Your task to perform on an android device: Go to sound settings Image 0: 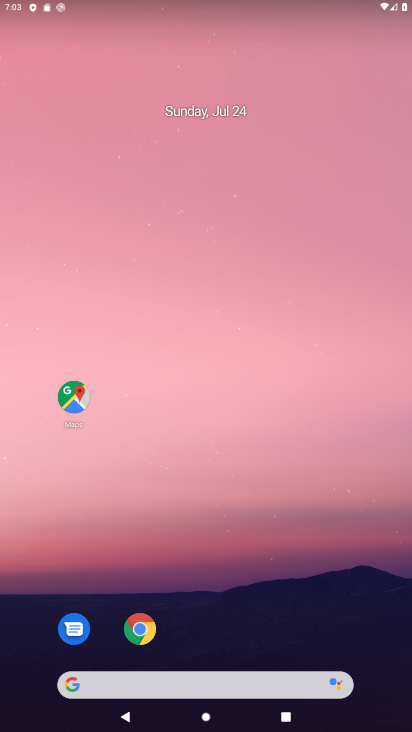
Step 0: drag from (280, 619) to (203, 40)
Your task to perform on an android device: Go to sound settings Image 1: 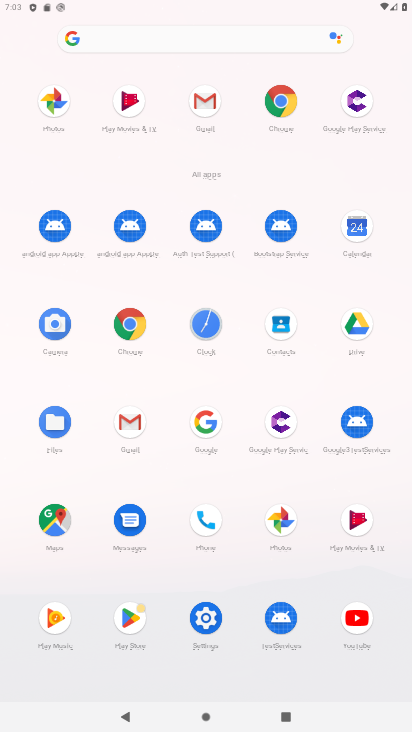
Step 1: click (194, 613)
Your task to perform on an android device: Go to sound settings Image 2: 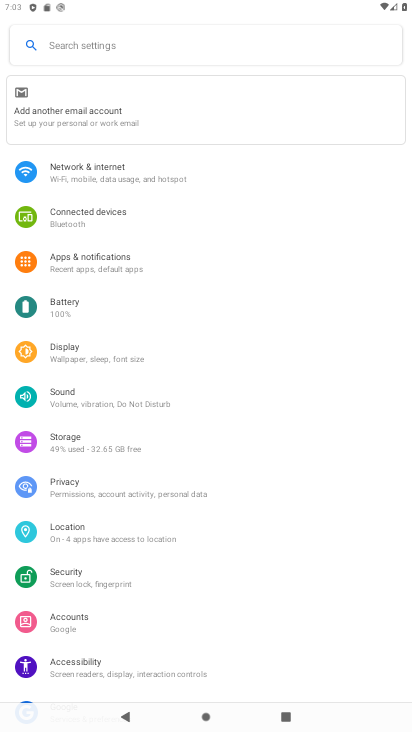
Step 2: click (58, 403)
Your task to perform on an android device: Go to sound settings Image 3: 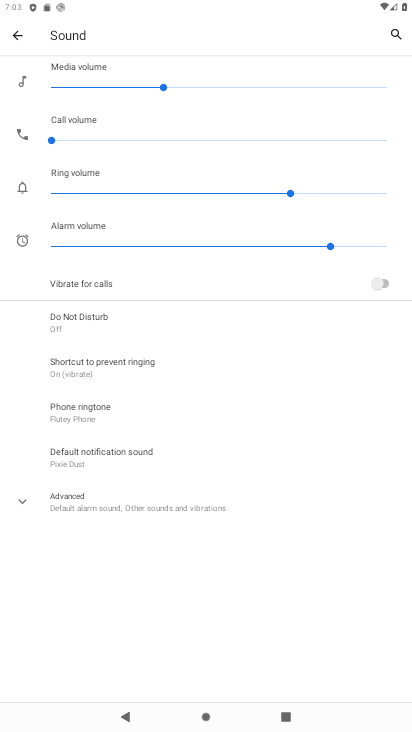
Step 3: task complete